Your task to perform on an android device: turn on the 24-hour format for clock Image 0: 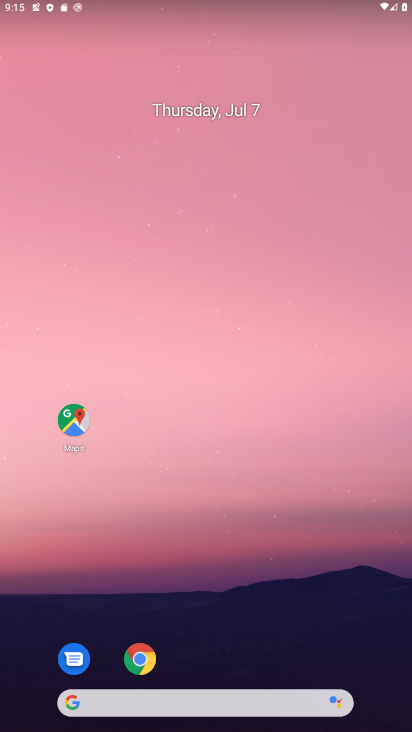
Step 0: drag from (240, 662) to (264, 205)
Your task to perform on an android device: turn on the 24-hour format for clock Image 1: 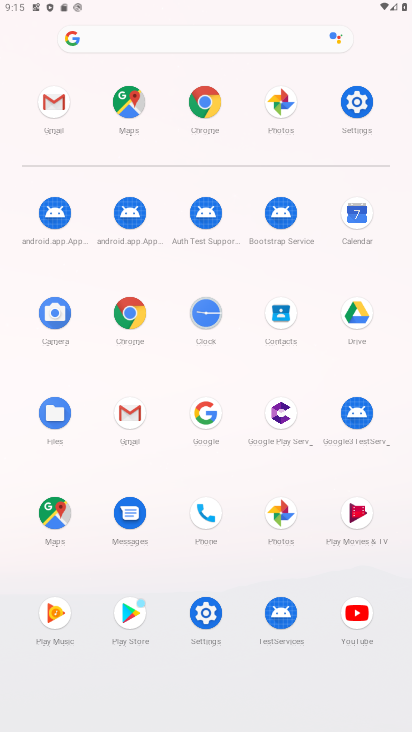
Step 1: click (210, 621)
Your task to perform on an android device: turn on the 24-hour format for clock Image 2: 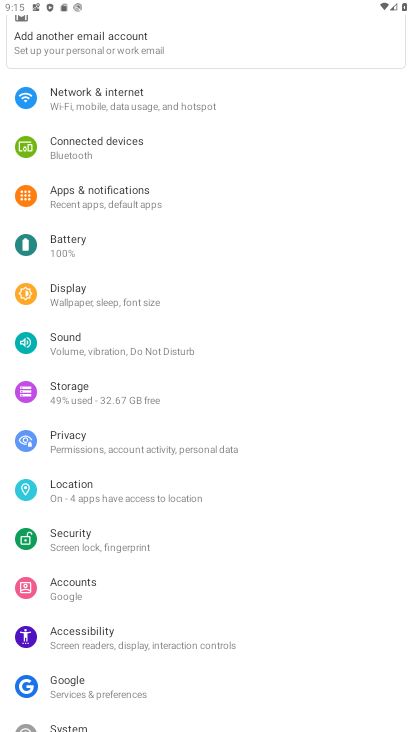
Step 2: drag from (110, 585) to (130, 447)
Your task to perform on an android device: turn on the 24-hour format for clock Image 3: 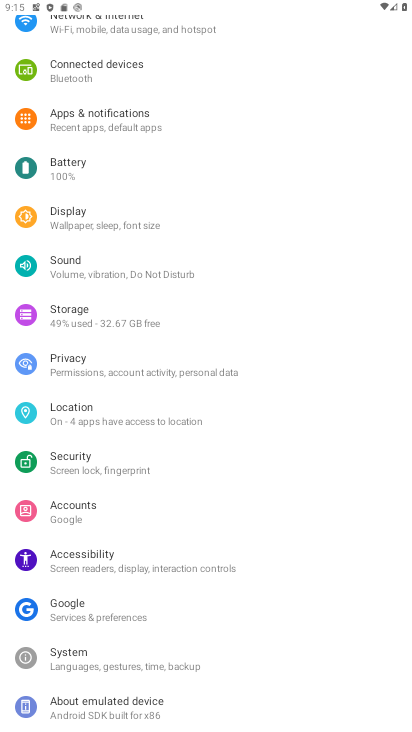
Step 3: click (83, 661)
Your task to perform on an android device: turn on the 24-hour format for clock Image 4: 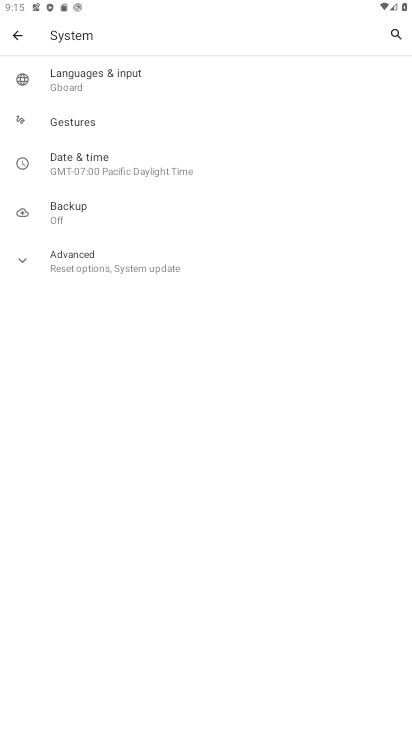
Step 4: click (97, 163)
Your task to perform on an android device: turn on the 24-hour format for clock Image 5: 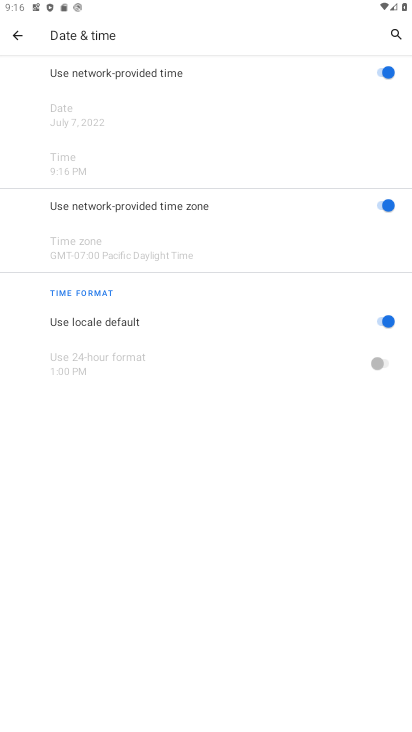
Step 5: click (382, 314)
Your task to perform on an android device: turn on the 24-hour format for clock Image 6: 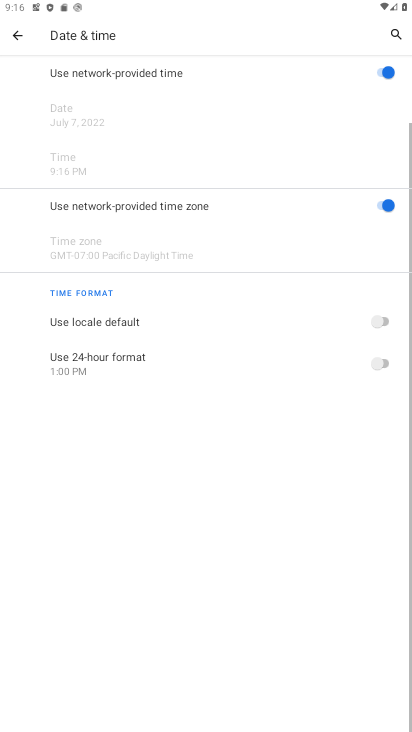
Step 6: click (397, 361)
Your task to perform on an android device: turn on the 24-hour format for clock Image 7: 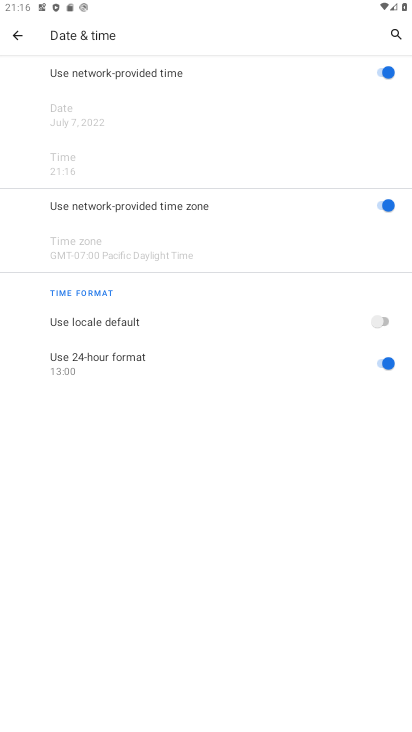
Step 7: task complete